Your task to perform on an android device: Go to ESPN.com Image 0: 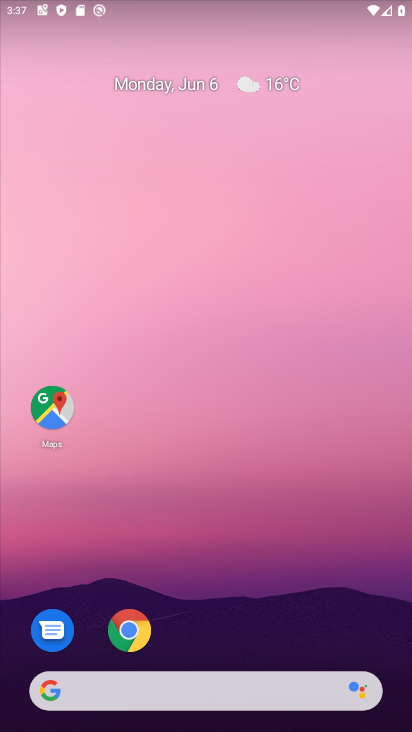
Step 0: click (120, 643)
Your task to perform on an android device: Go to ESPN.com Image 1: 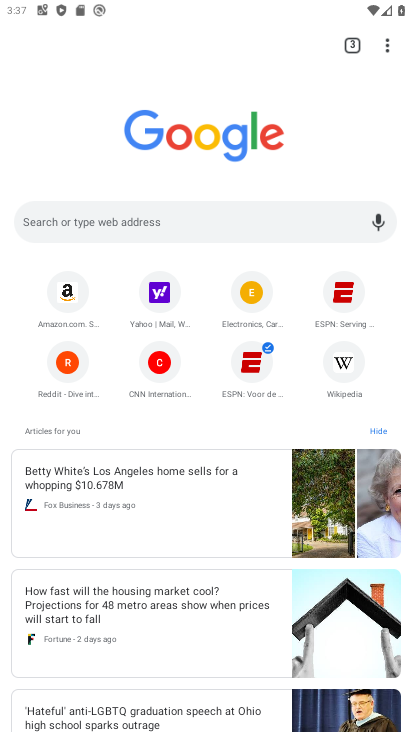
Step 1: click (330, 302)
Your task to perform on an android device: Go to ESPN.com Image 2: 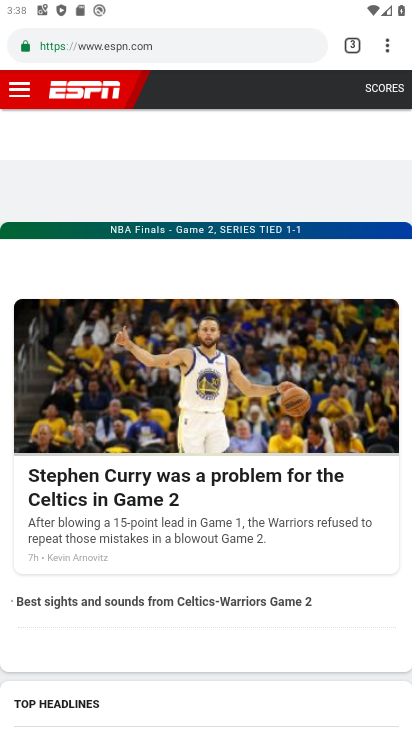
Step 2: task complete